Your task to perform on an android device: toggle priority inbox in the gmail app Image 0: 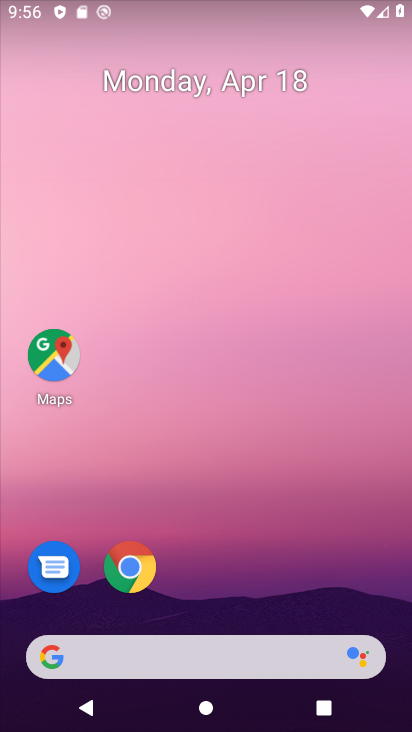
Step 0: drag from (245, 597) to (264, 54)
Your task to perform on an android device: toggle priority inbox in the gmail app Image 1: 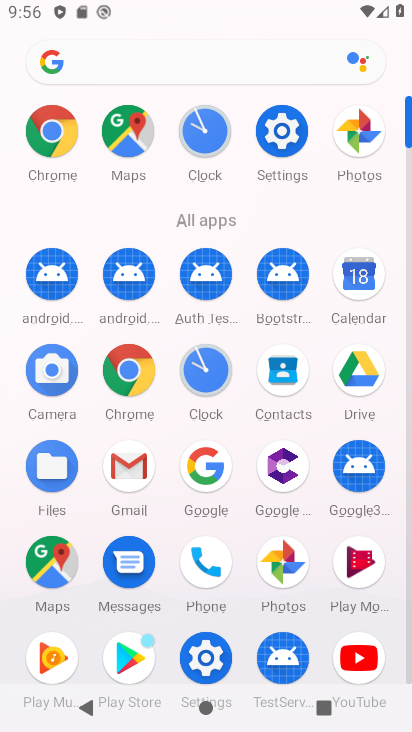
Step 1: click (128, 469)
Your task to perform on an android device: toggle priority inbox in the gmail app Image 2: 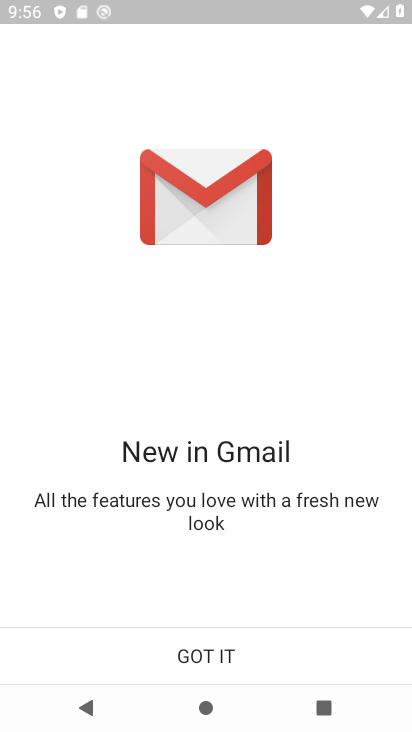
Step 2: click (215, 656)
Your task to perform on an android device: toggle priority inbox in the gmail app Image 3: 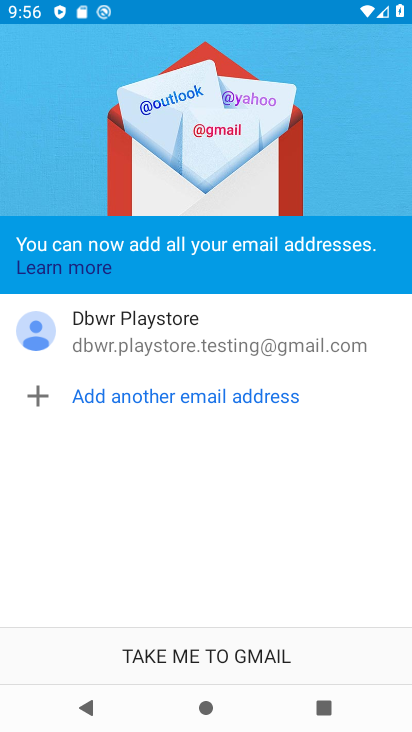
Step 3: click (215, 652)
Your task to perform on an android device: toggle priority inbox in the gmail app Image 4: 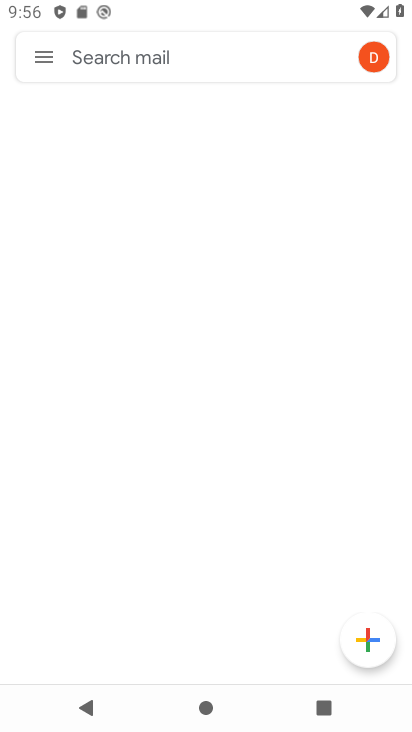
Step 4: click (40, 60)
Your task to perform on an android device: toggle priority inbox in the gmail app Image 5: 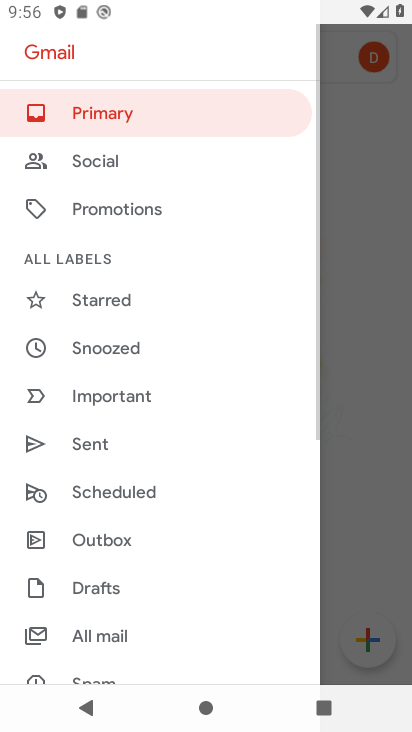
Step 5: drag from (110, 519) to (116, 122)
Your task to perform on an android device: toggle priority inbox in the gmail app Image 6: 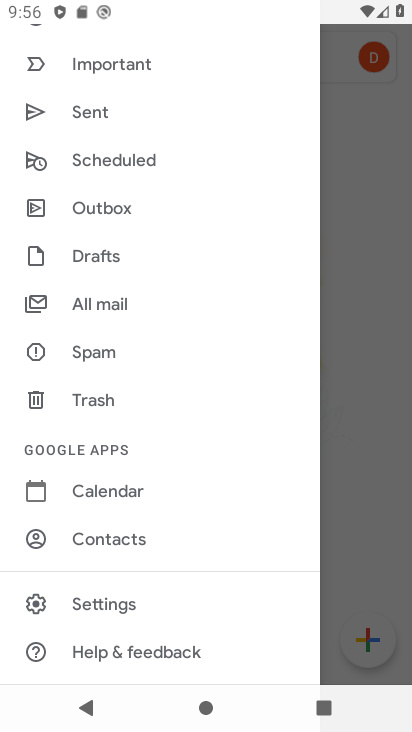
Step 6: click (107, 592)
Your task to perform on an android device: toggle priority inbox in the gmail app Image 7: 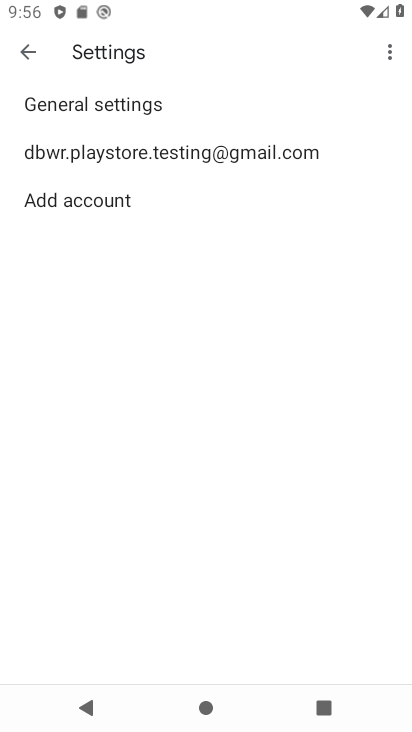
Step 7: click (168, 157)
Your task to perform on an android device: toggle priority inbox in the gmail app Image 8: 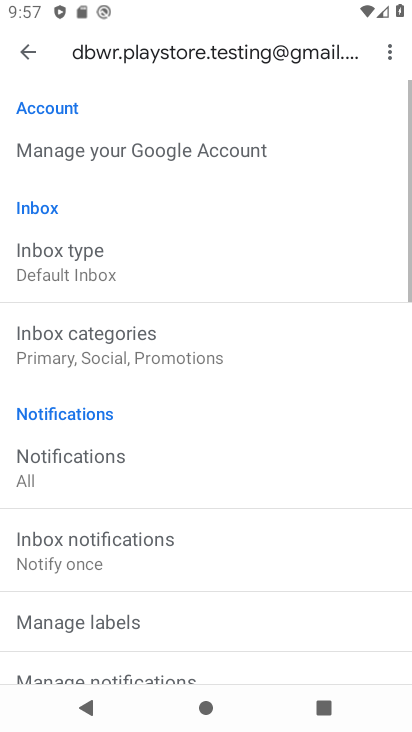
Step 8: click (88, 276)
Your task to perform on an android device: toggle priority inbox in the gmail app Image 9: 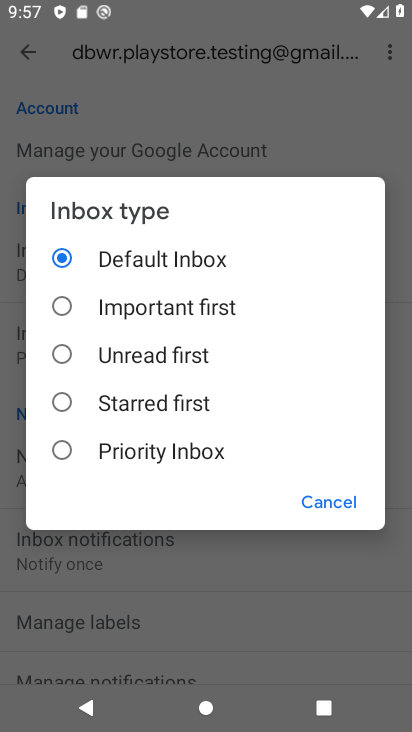
Step 9: click (75, 456)
Your task to perform on an android device: toggle priority inbox in the gmail app Image 10: 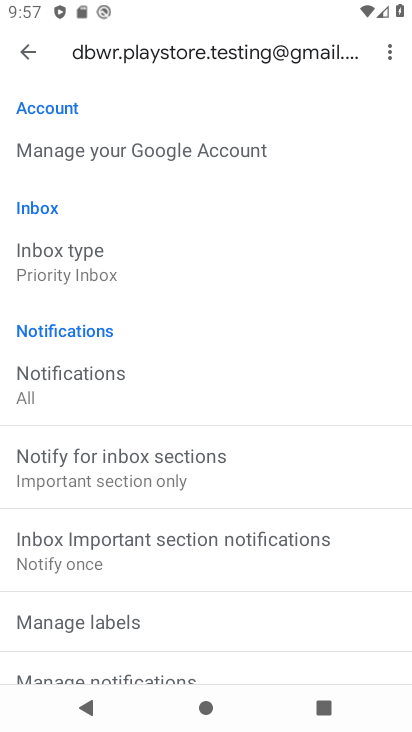
Step 10: task complete